Your task to perform on an android device: Go to Wikipedia Image 0: 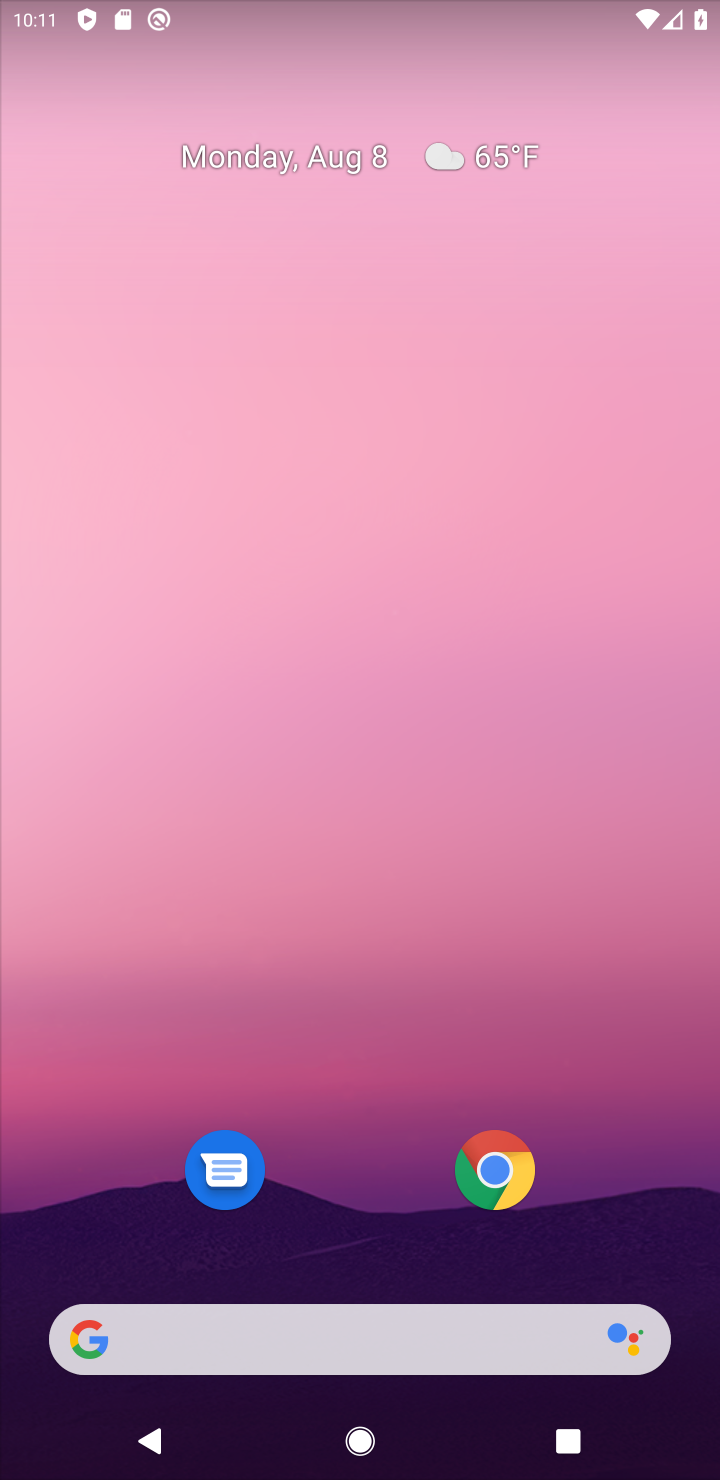
Step 0: press home button
Your task to perform on an android device: Go to Wikipedia Image 1: 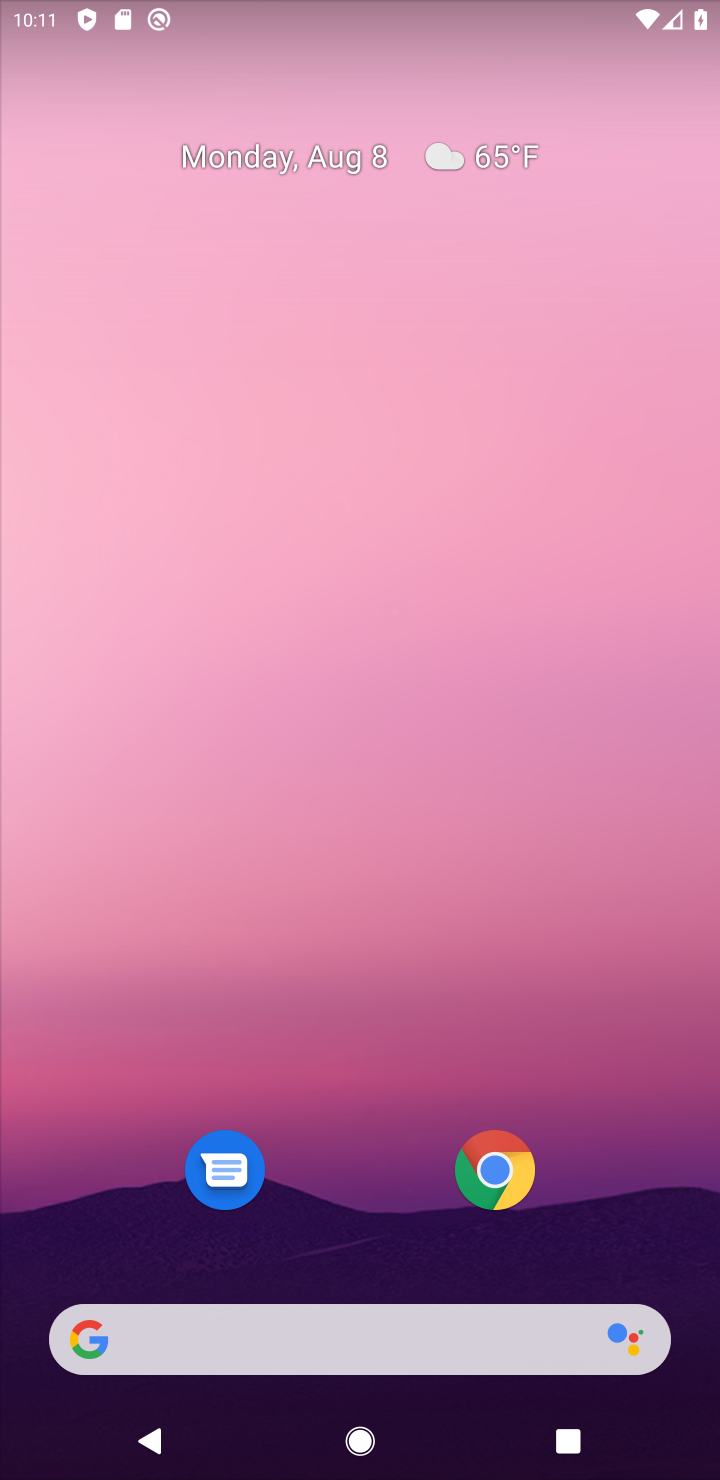
Step 1: click (82, 1348)
Your task to perform on an android device: Go to Wikipedia Image 2: 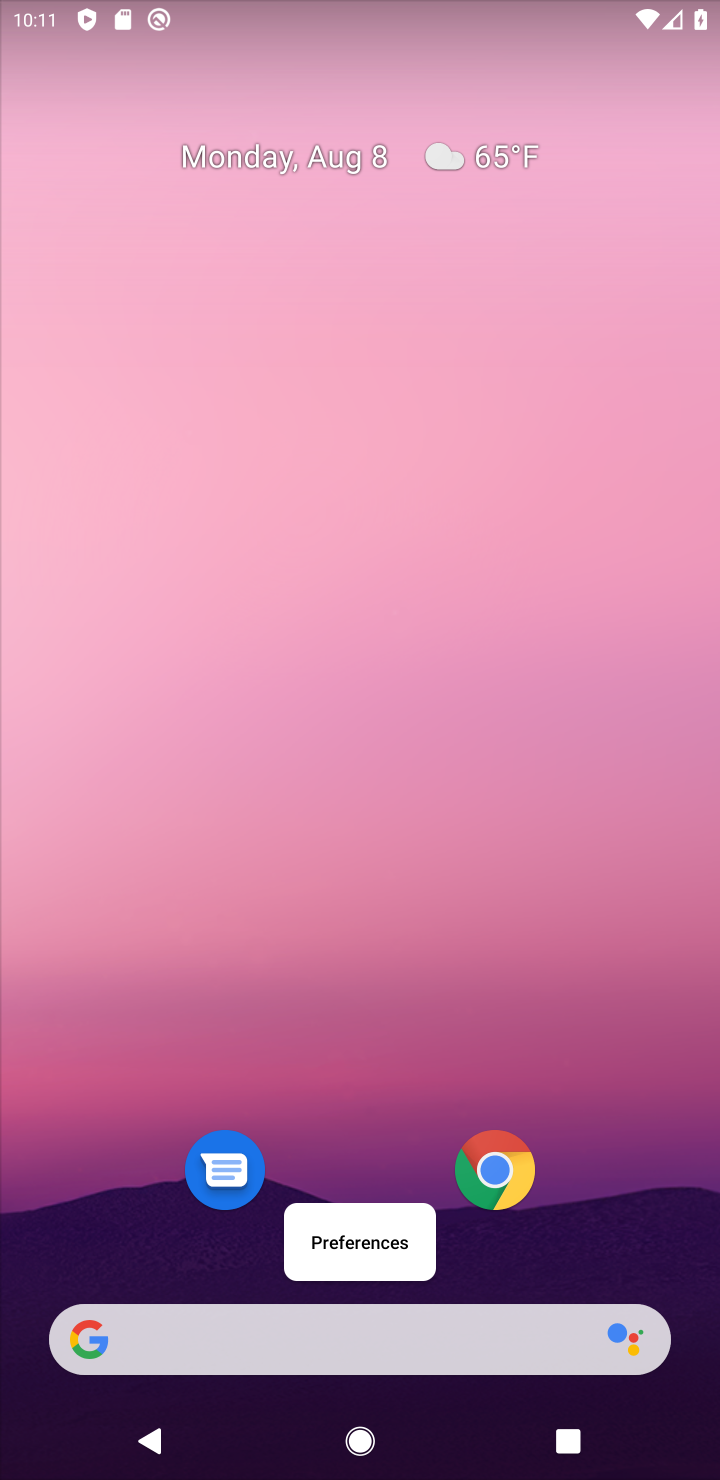
Step 2: click (86, 1340)
Your task to perform on an android device: Go to Wikipedia Image 3: 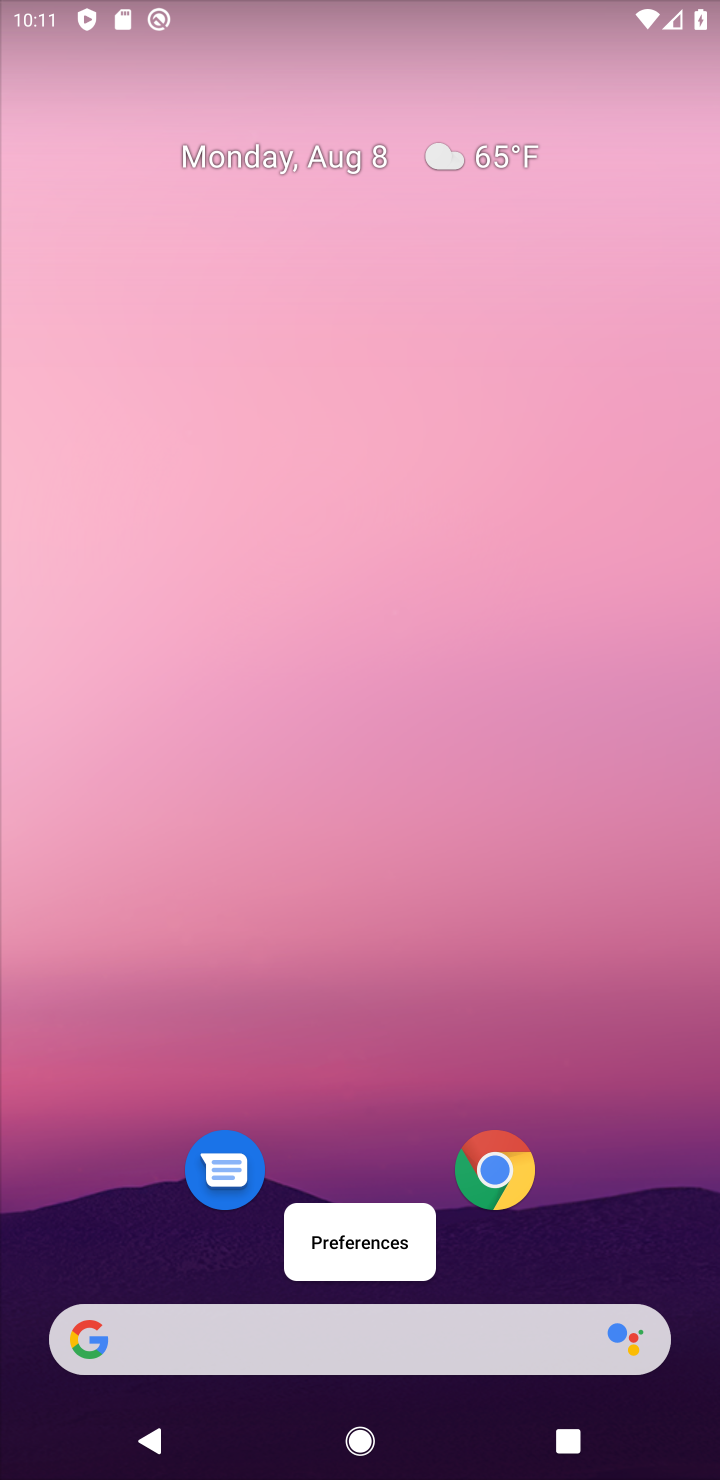
Step 3: click (80, 1341)
Your task to perform on an android device: Go to Wikipedia Image 4: 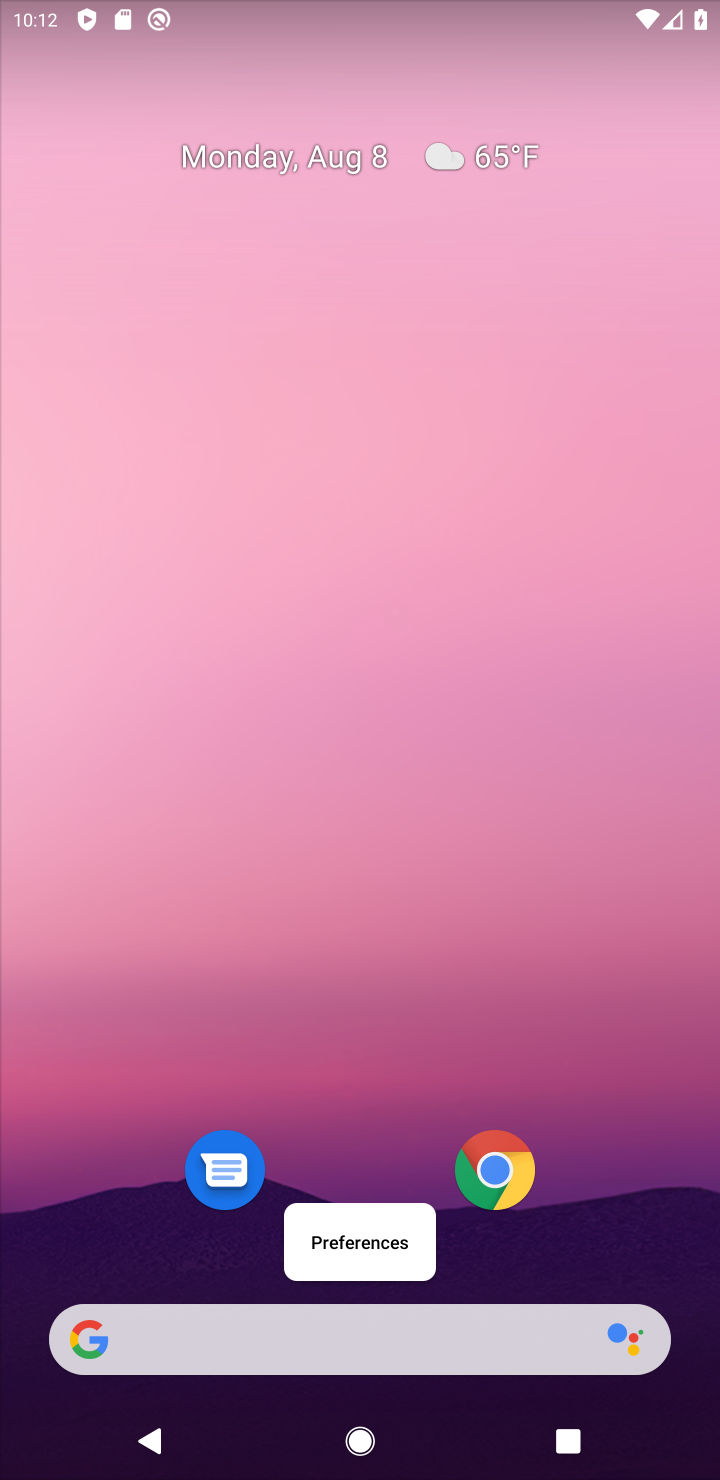
Step 4: click (82, 1327)
Your task to perform on an android device: Go to Wikipedia Image 5: 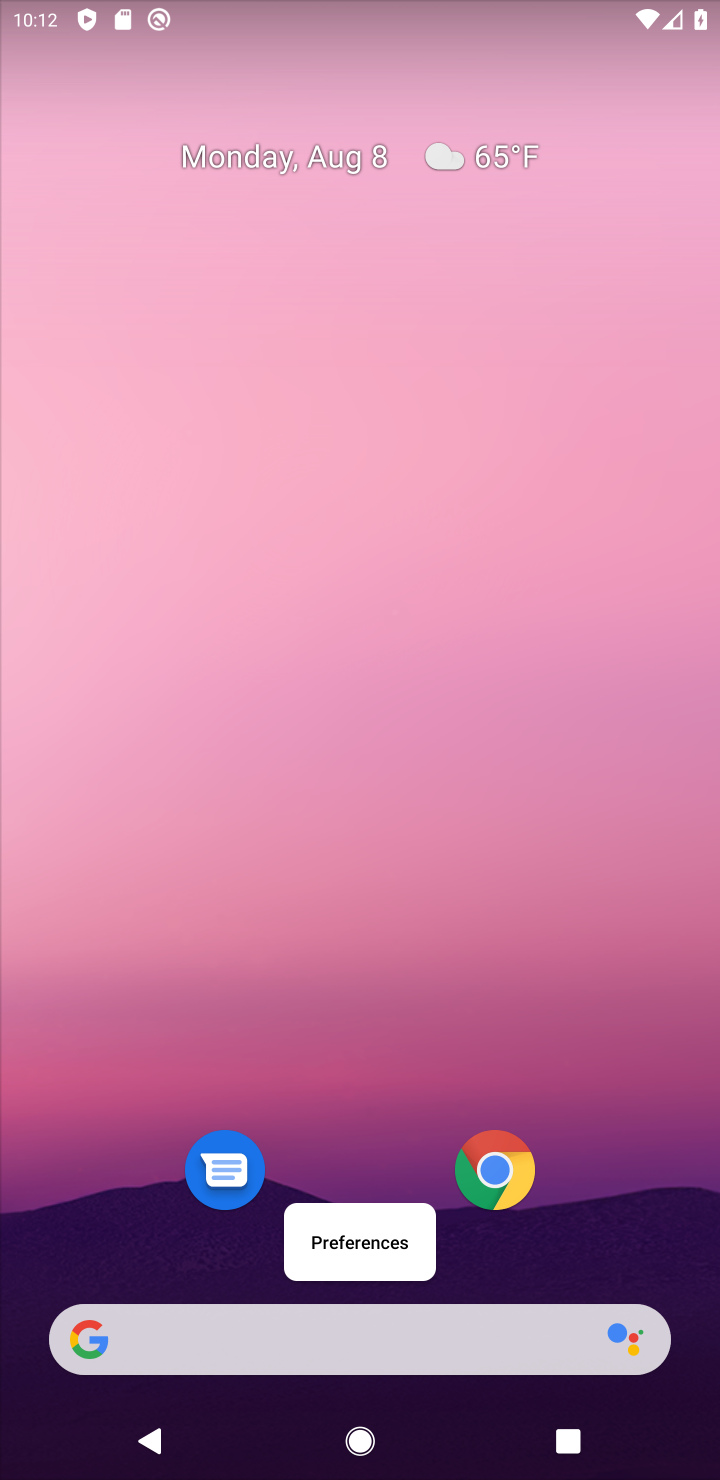
Step 5: click (86, 1349)
Your task to perform on an android device: Go to Wikipedia Image 6: 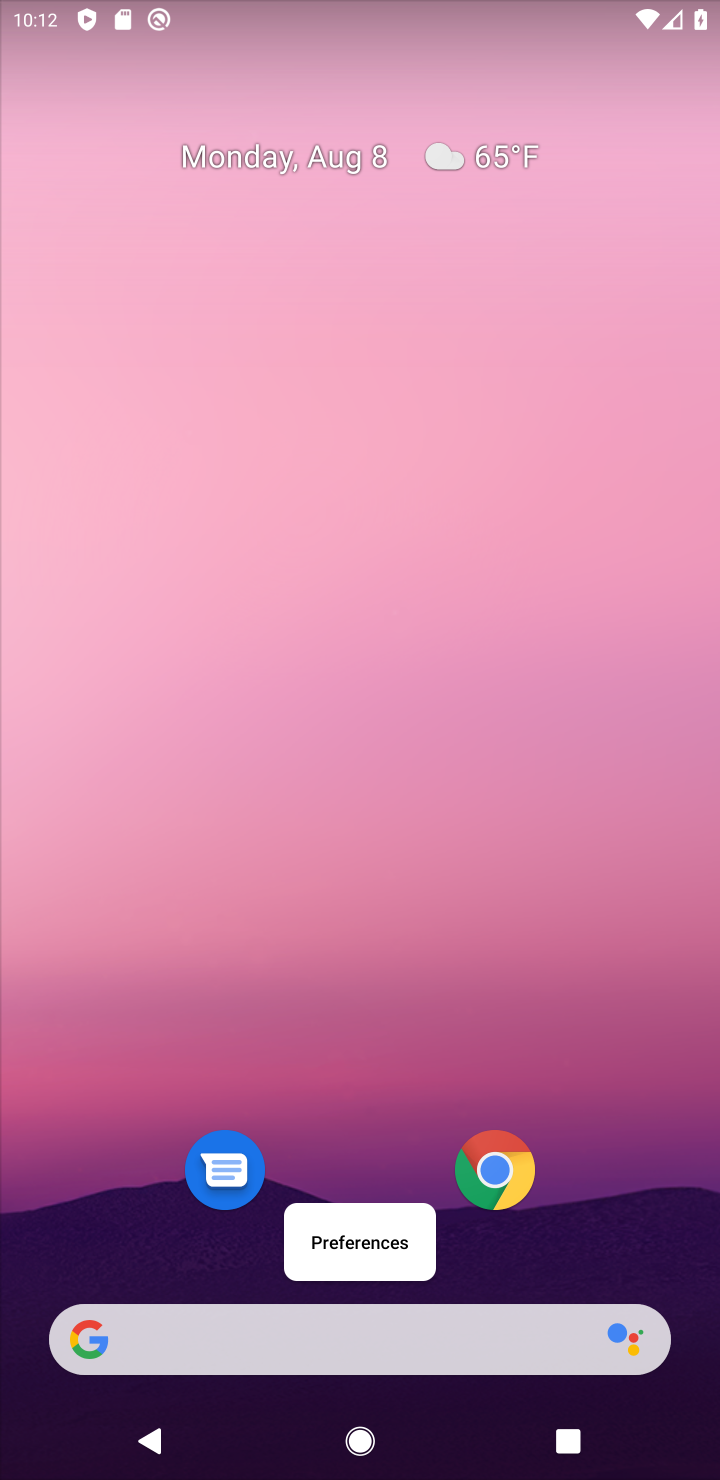
Step 6: click (84, 1348)
Your task to perform on an android device: Go to Wikipedia Image 7: 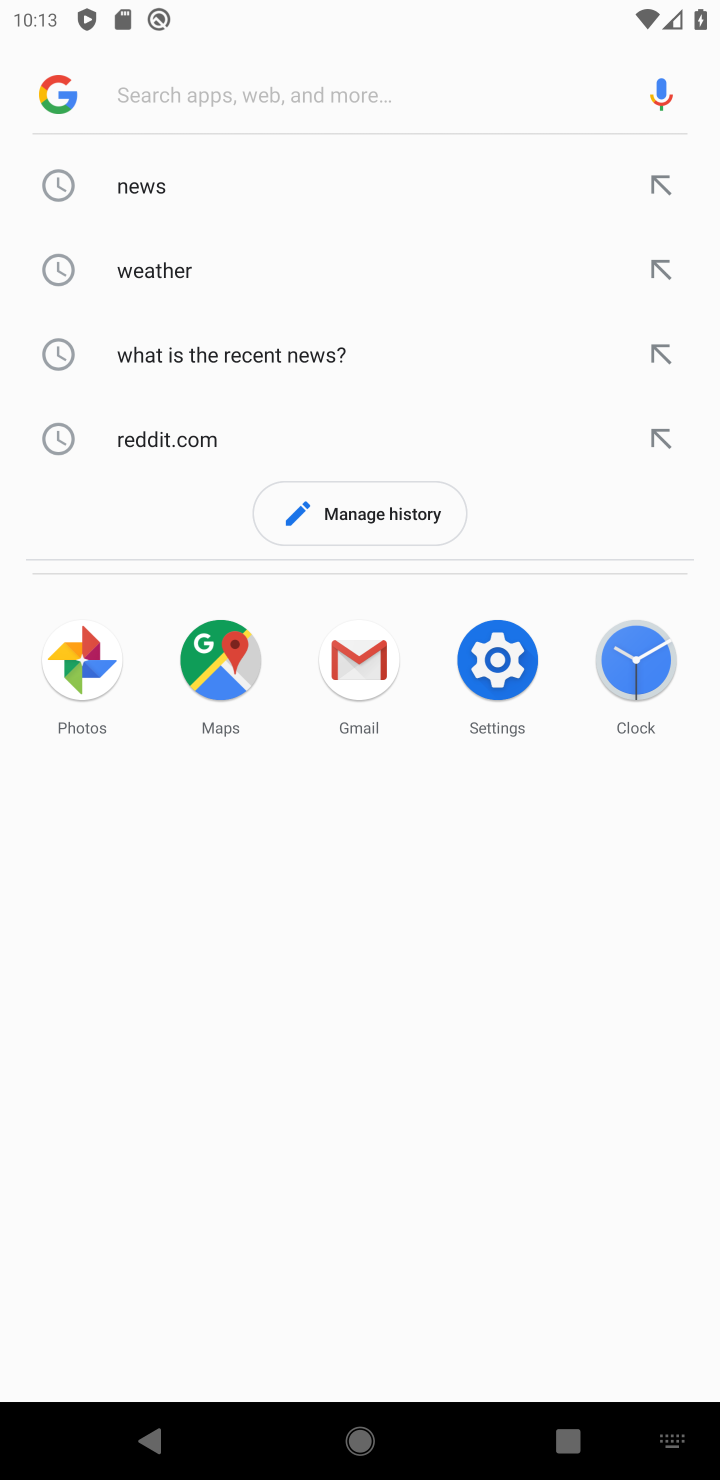
Step 7: type " Wikipedia"
Your task to perform on an android device: Go to Wikipedia Image 8: 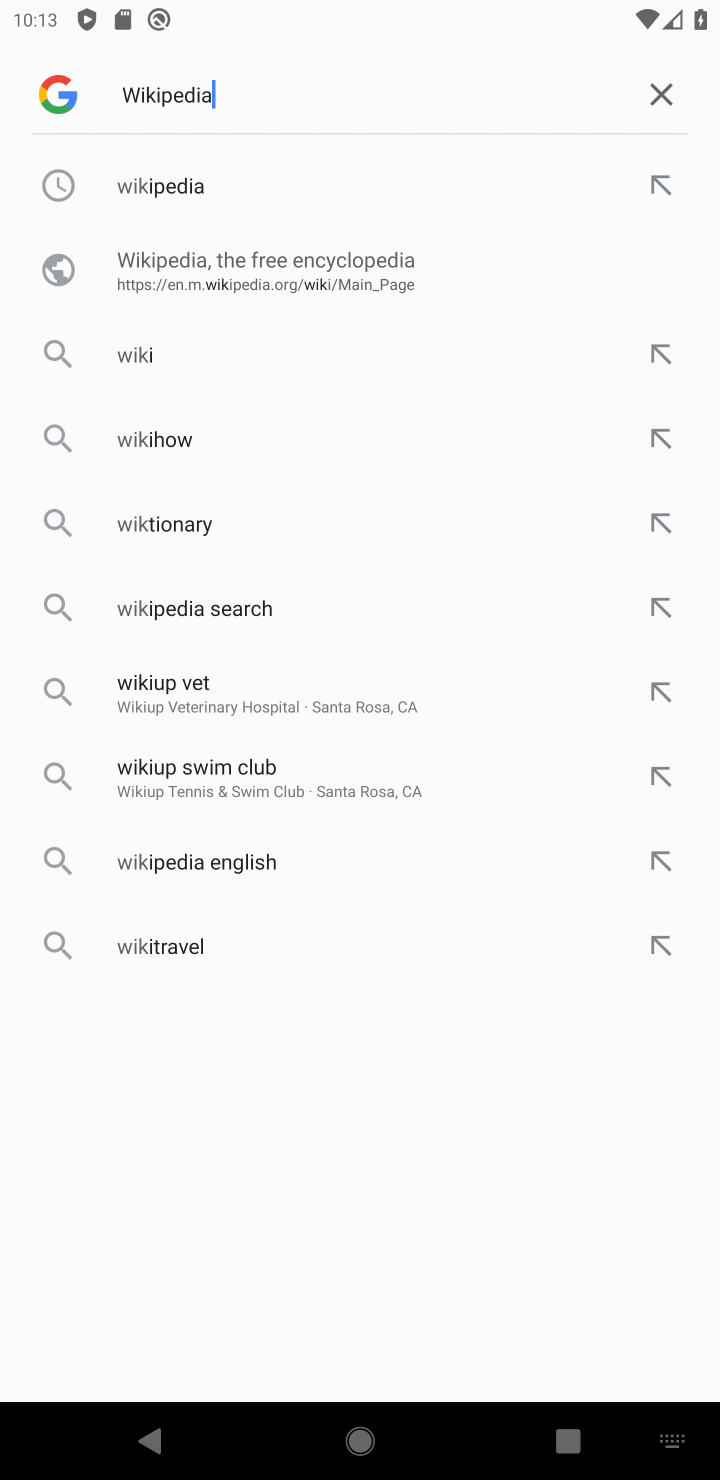
Step 8: press enter
Your task to perform on an android device: Go to Wikipedia Image 9: 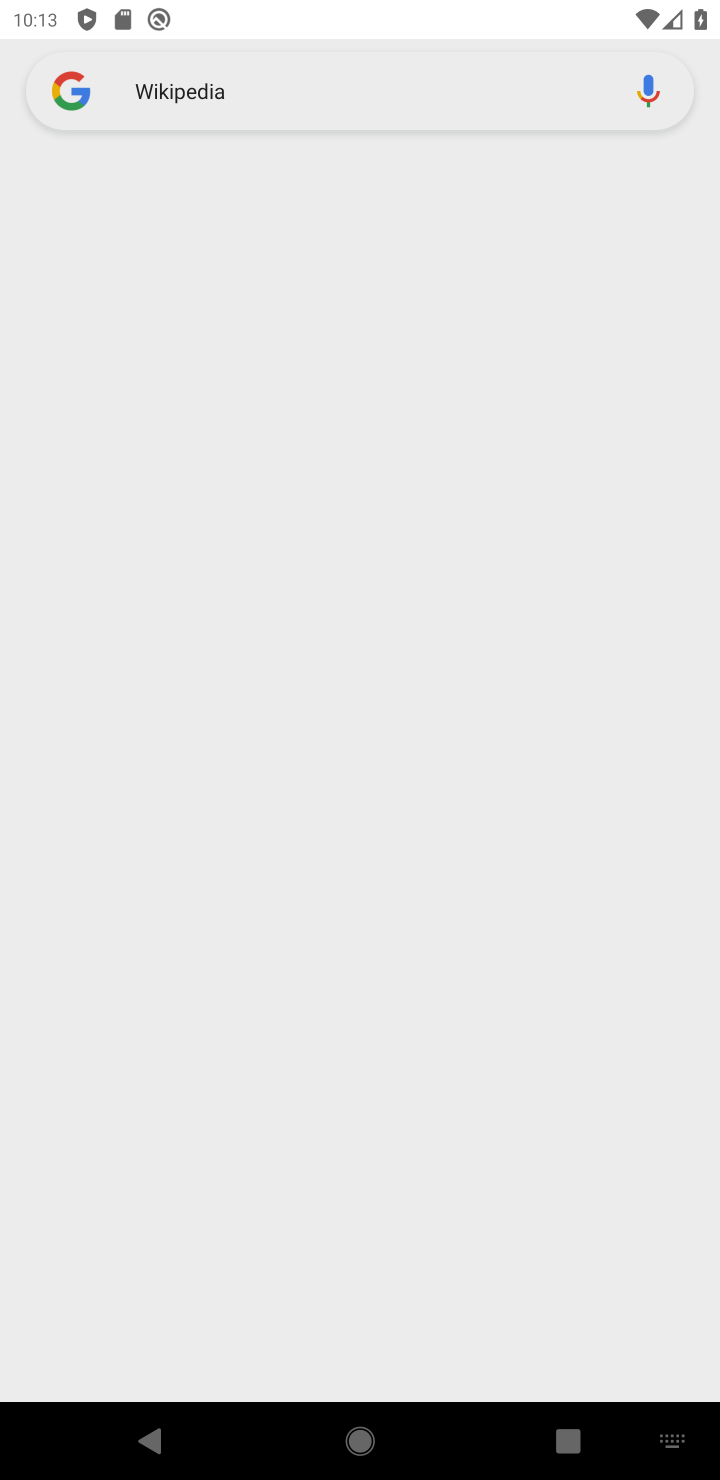
Step 9: click (172, 199)
Your task to perform on an android device: Go to Wikipedia Image 10: 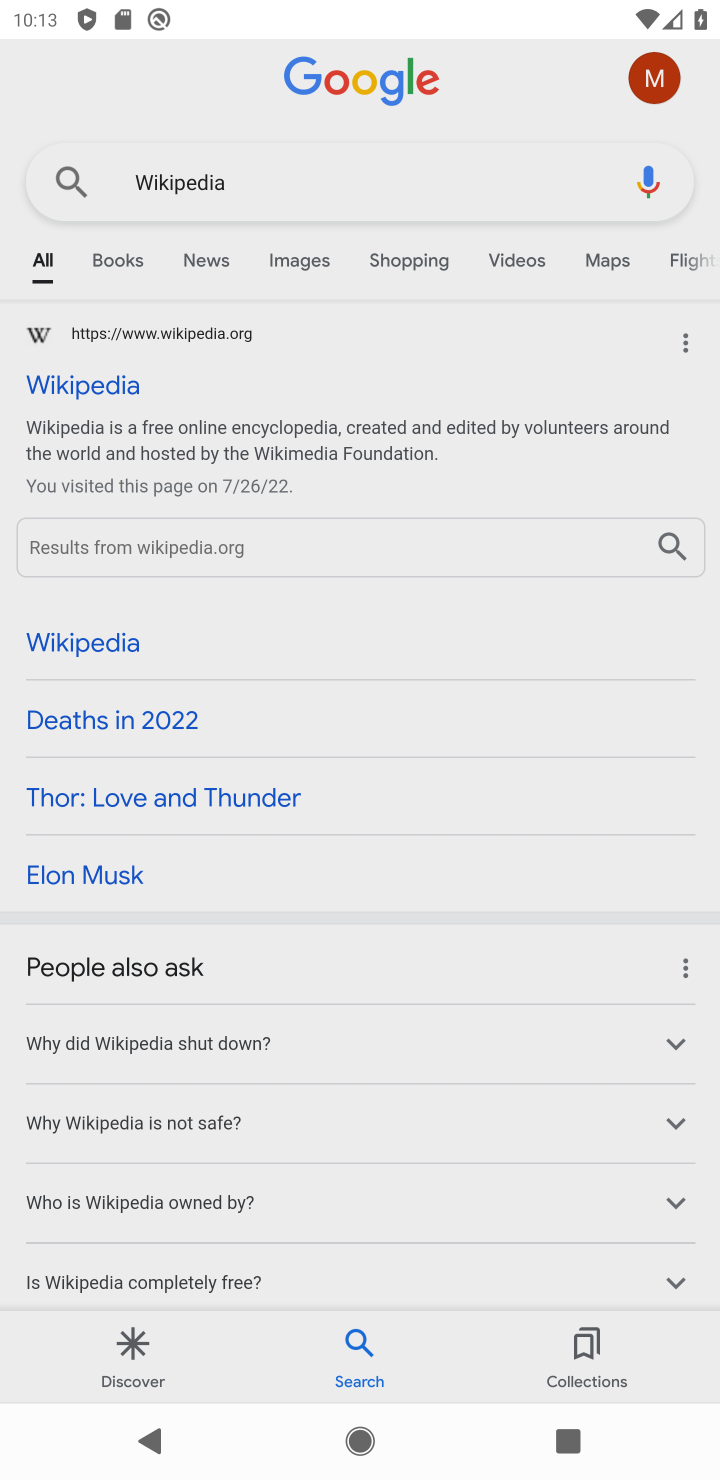
Step 10: click (91, 391)
Your task to perform on an android device: Go to Wikipedia Image 11: 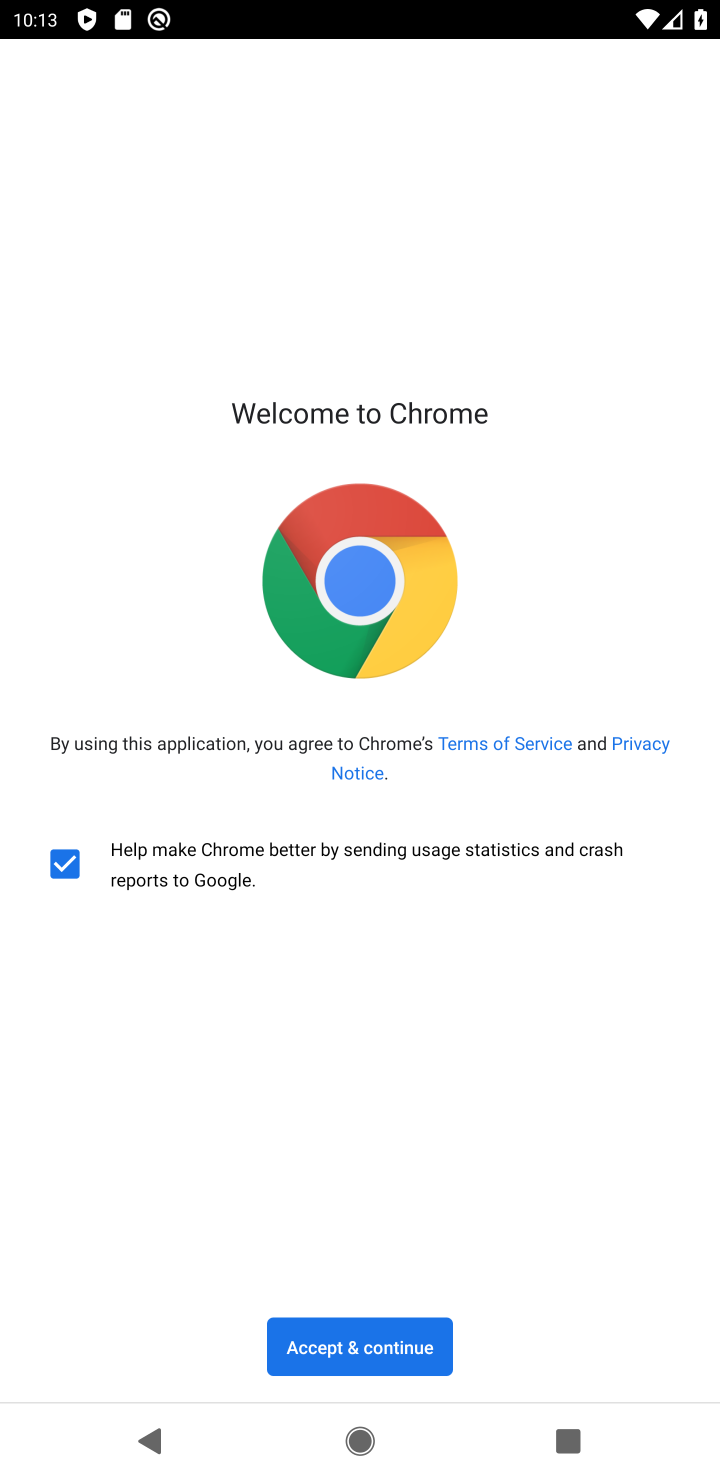
Step 11: click (351, 1337)
Your task to perform on an android device: Go to Wikipedia Image 12: 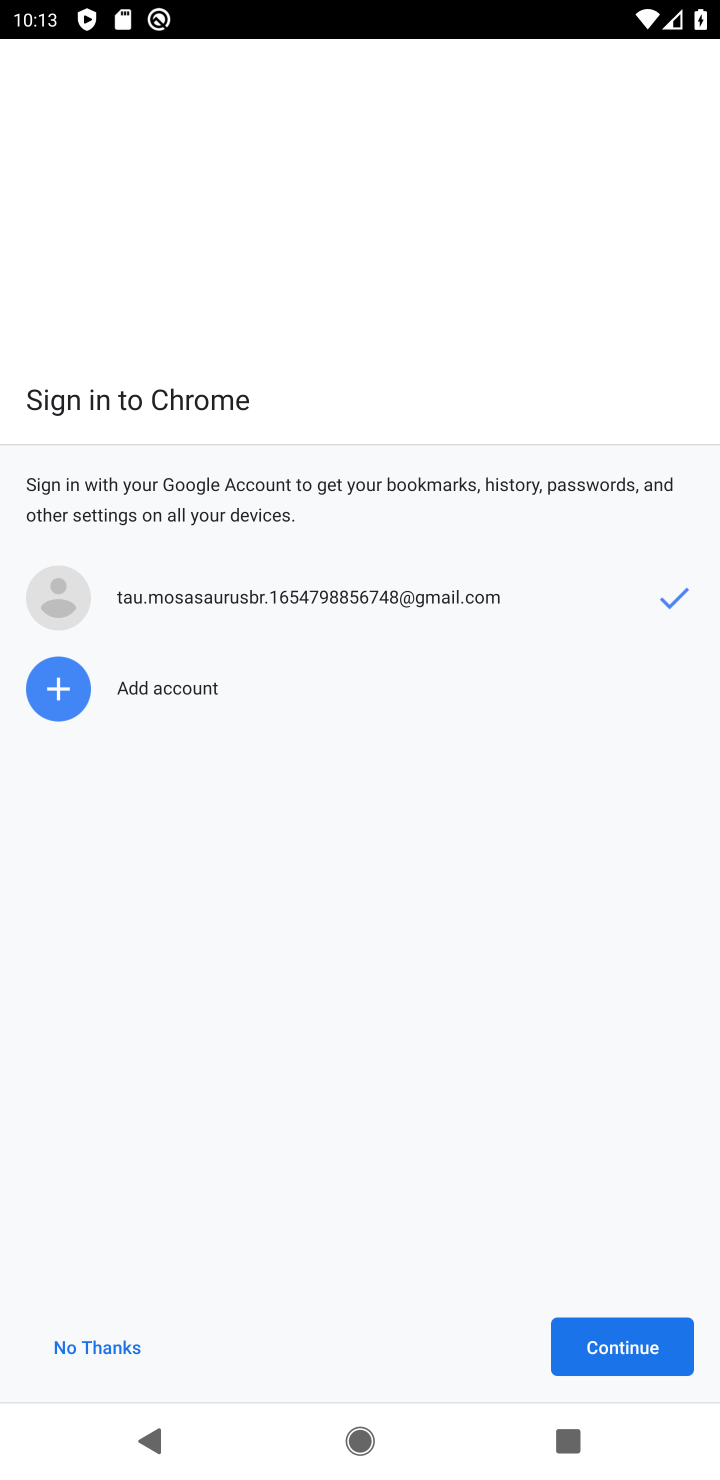
Step 12: click (649, 1352)
Your task to perform on an android device: Go to Wikipedia Image 13: 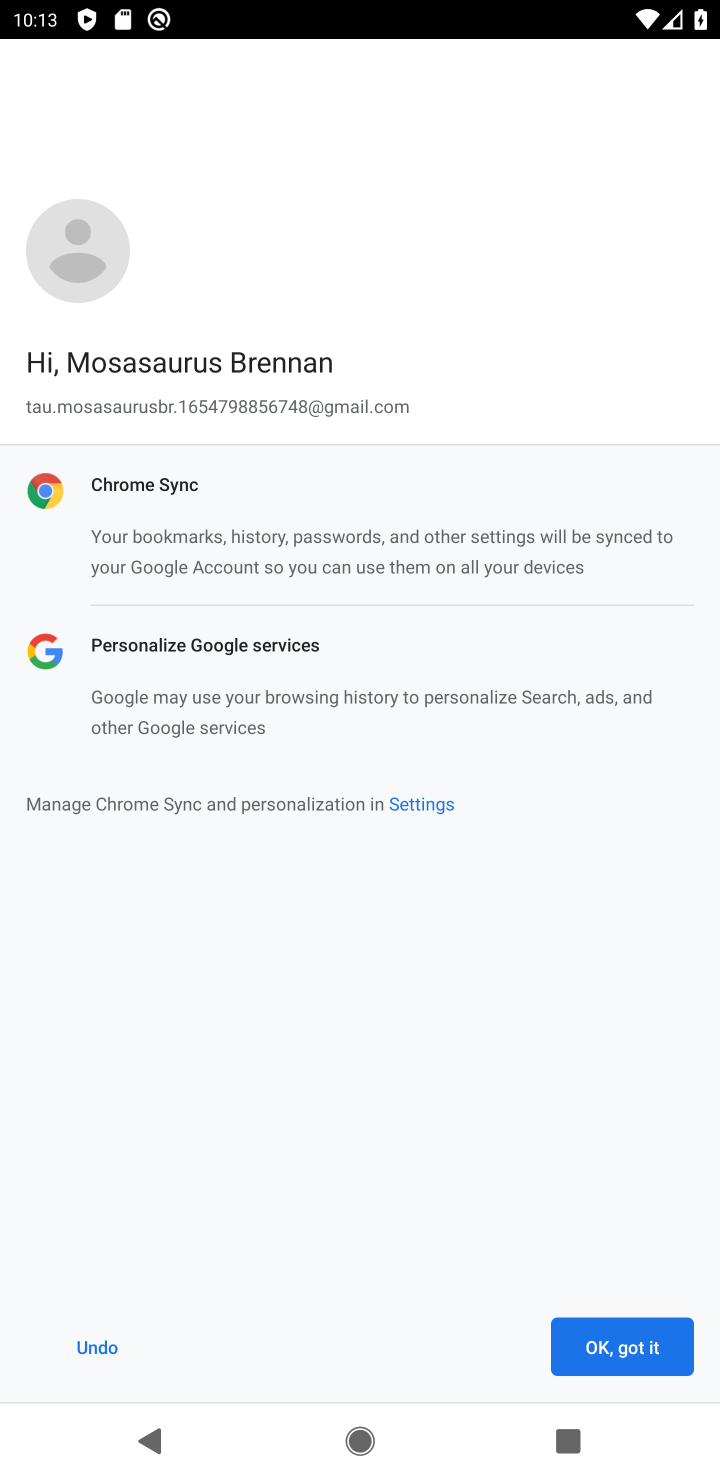
Step 13: click (649, 1352)
Your task to perform on an android device: Go to Wikipedia Image 14: 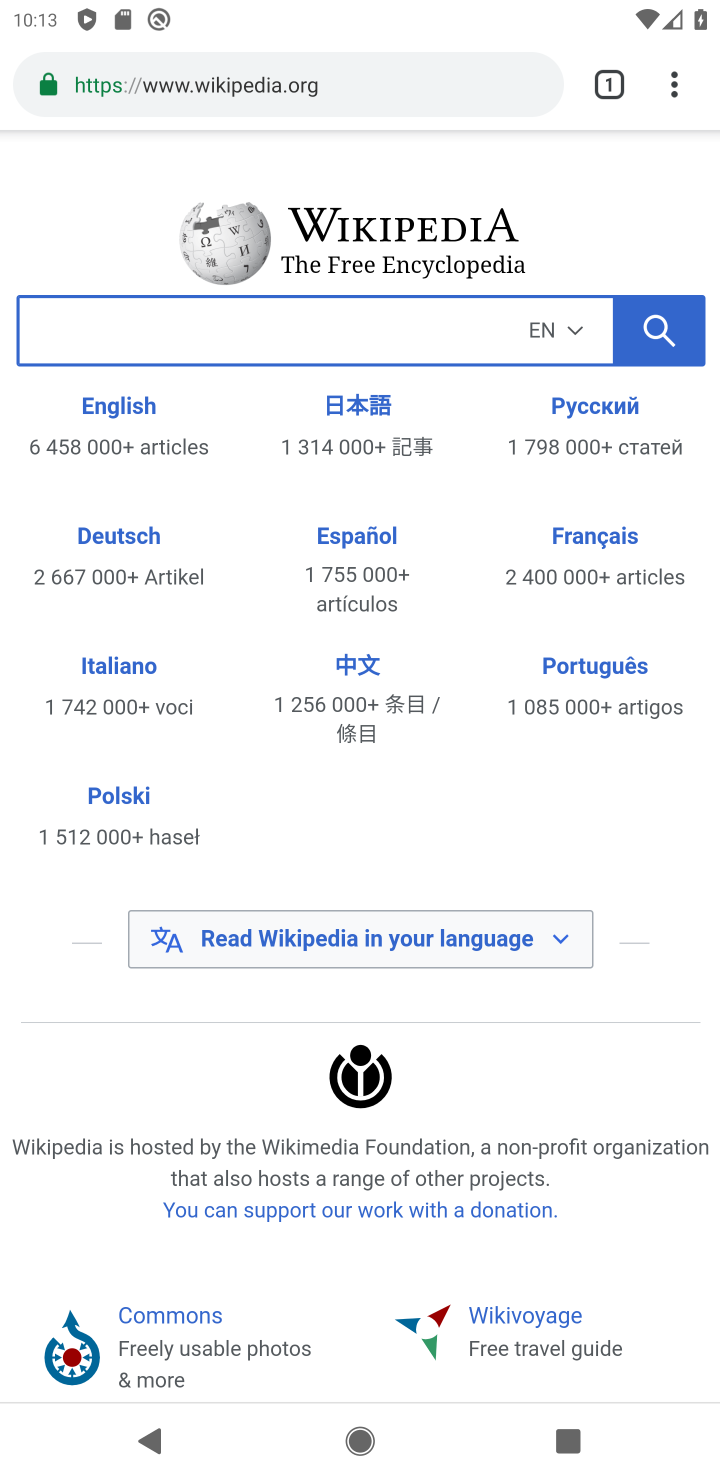
Step 14: task complete